Your task to perform on an android device: toggle data saver in the chrome app Image 0: 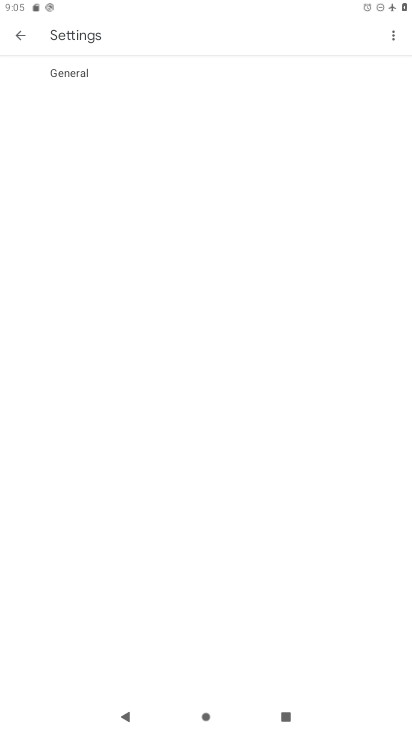
Step 0: press home button
Your task to perform on an android device: toggle data saver in the chrome app Image 1: 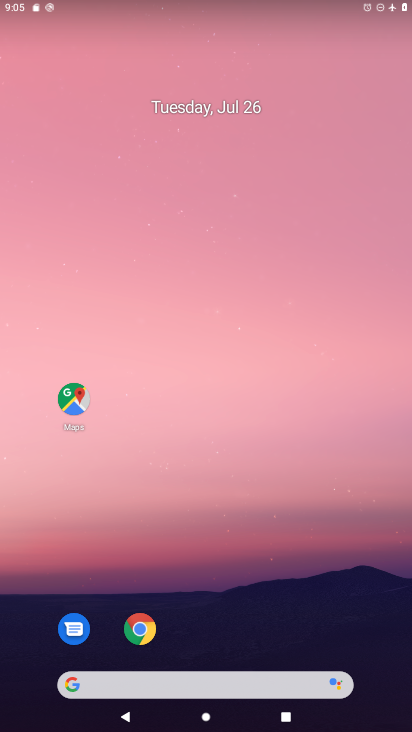
Step 1: click (144, 633)
Your task to perform on an android device: toggle data saver in the chrome app Image 2: 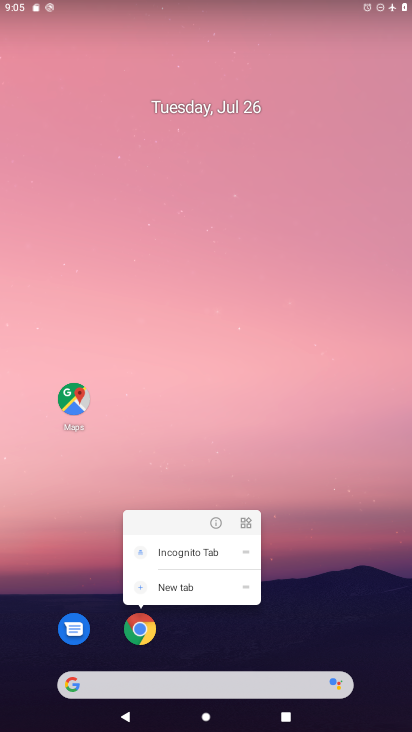
Step 2: click (147, 626)
Your task to perform on an android device: toggle data saver in the chrome app Image 3: 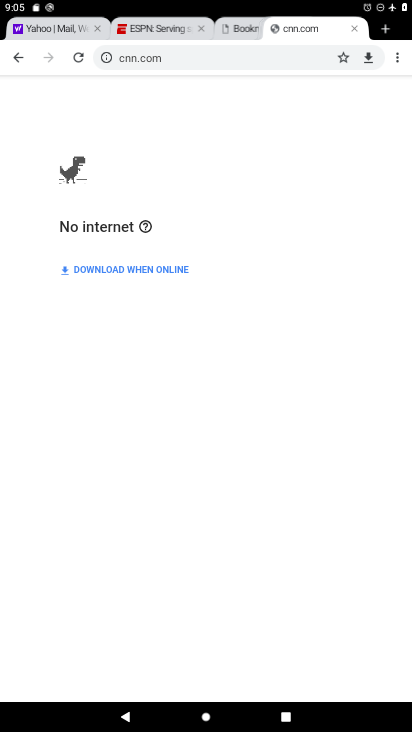
Step 3: drag from (399, 51) to (286, 355)
Your task to perform on an android device: toggle data saver in the chrome app Image 4: 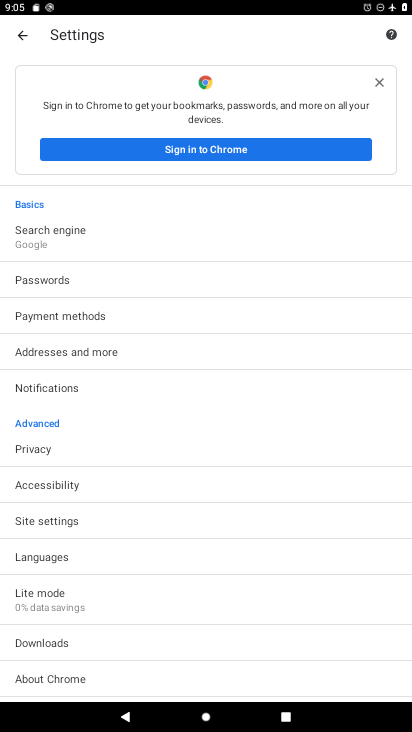
Step 4: drag from (292, 620) to (297, 162)
Your task to perform on an android device: toggle data saver in the chrome app Image 5: 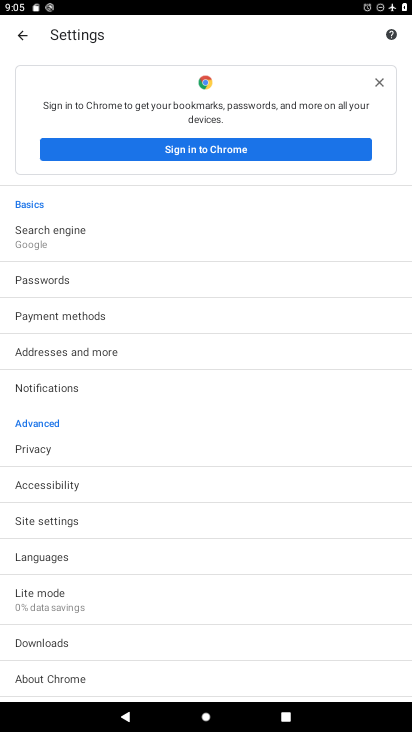
Step 5: click (59, 598)
Your task to perform on an android device: toggle data saver in the chrome app Image 6: 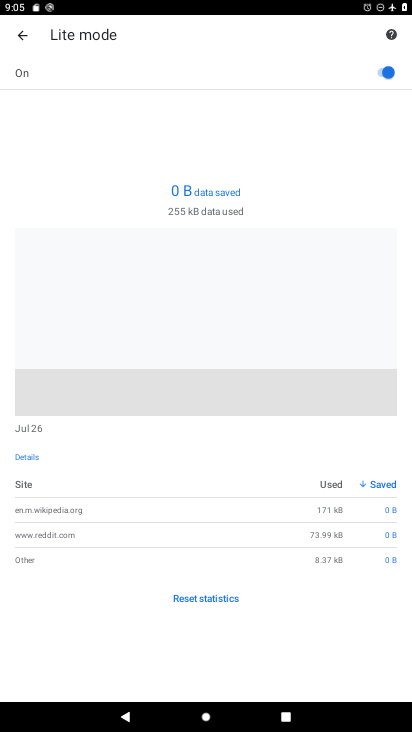
Step 6: click (392, 67)
Your task to perform on an android device: toggle data saver in the chrome app Image 7: 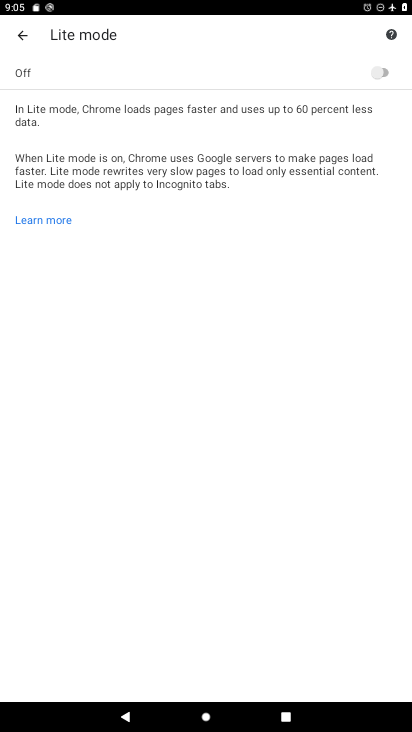
Step 7: task complete